Your task to perform on an android device: See recent photos Image 0: 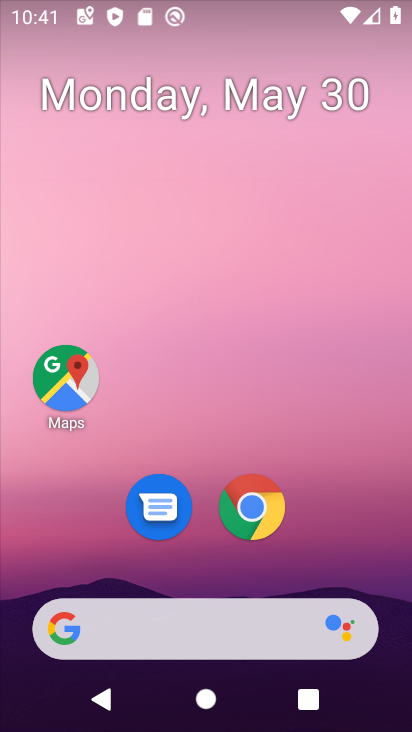
Step 0: drag from (396, 625) to (278, 36)
Your task to perform on an android device: See recent photos Image 1: 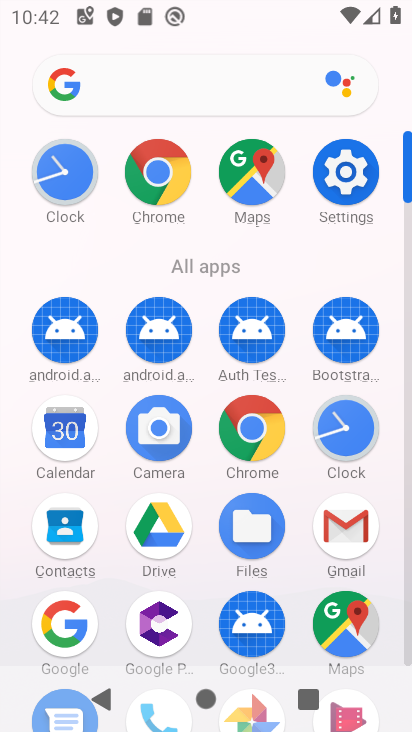
Step 1: drag from (259, 632) to (296, 274)
Your task to perform on an android device: See recent photos Image 2: 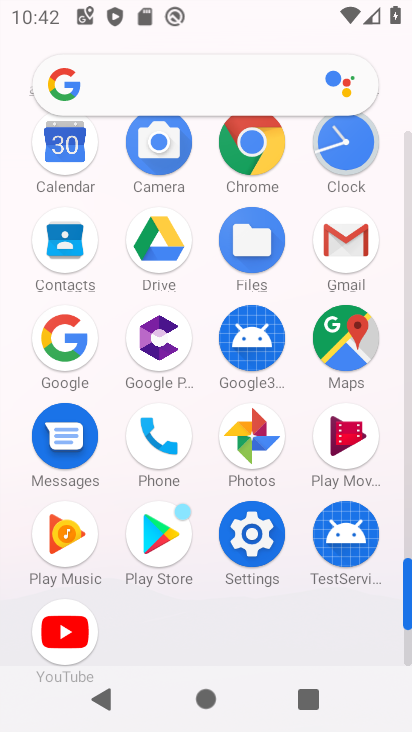
Step 2: click (252, 443)
Your task to perform on an android device: See recent photos Image 3: 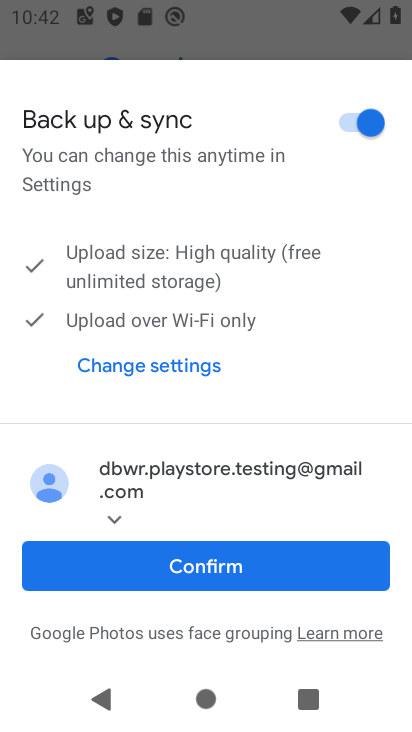
Step 3: click (201, 574)
Your task to perform on an android device: See recent photos Image 4: 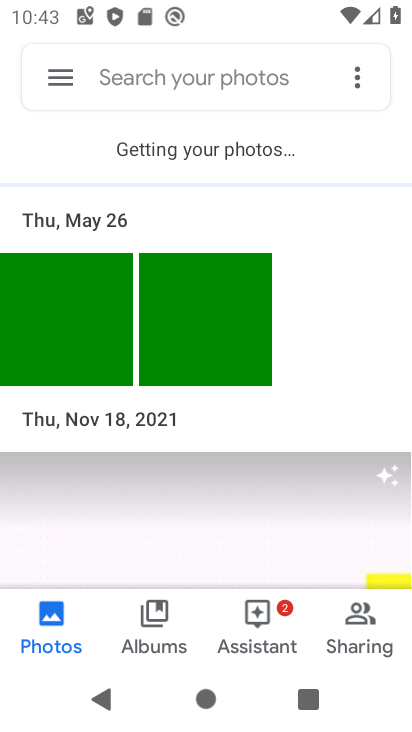
Step 4: click (60, 348)
Your task to perform on an android device: See recent photos Image 5: 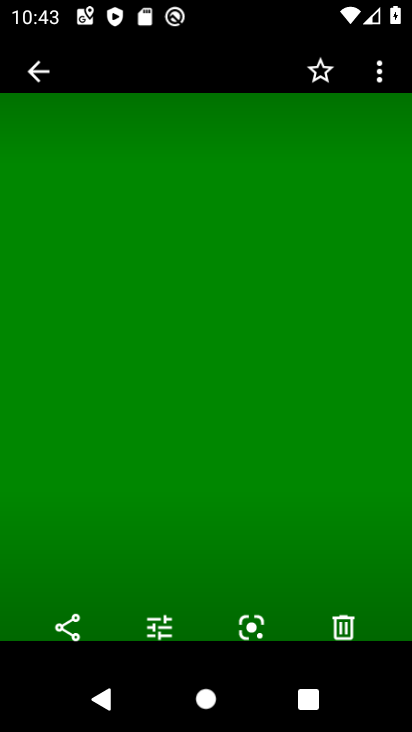
Step 5: task complete